Your task to perform on an android device: Search for custom made wallets on etsy.com Image 0: 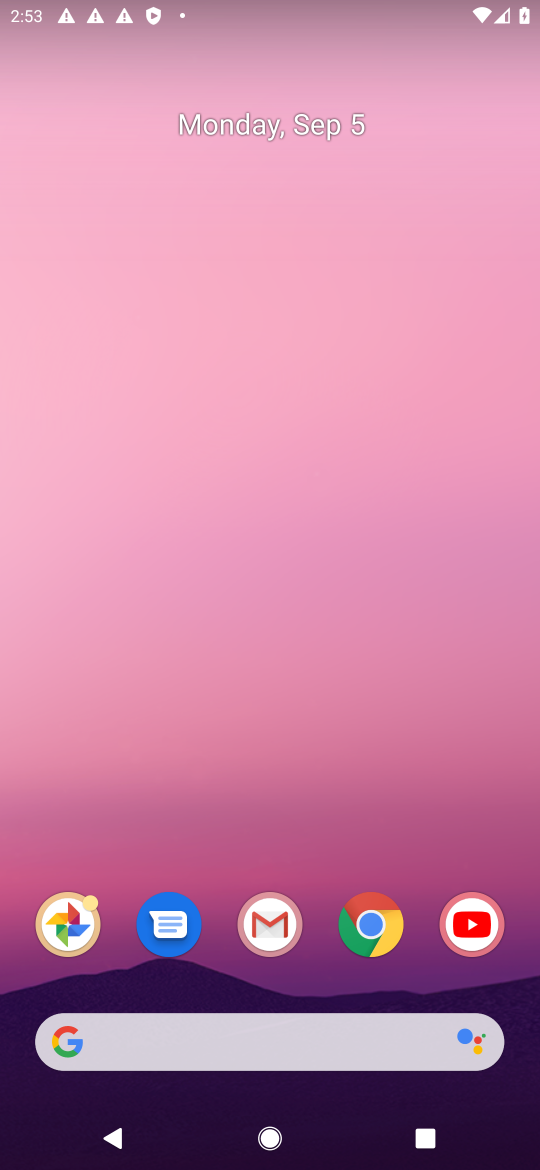
Step 0: click (530, 695)
Your task to perform on an android device: Search for custom made wallets on etsy.com Image 1: 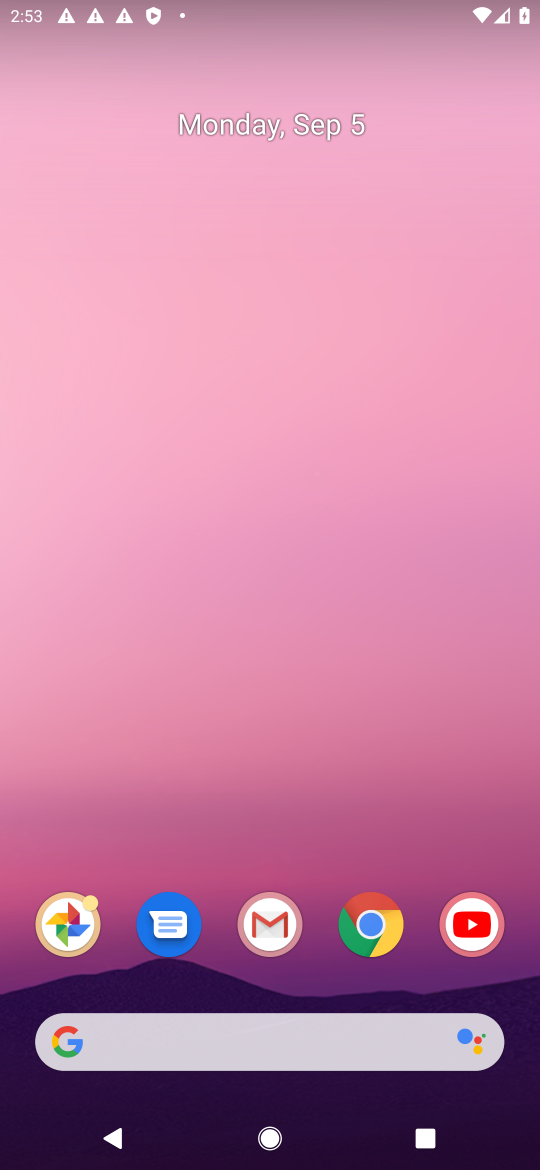
Step 1: click (369, 930)
Your task to perform on an android device: Search for custom made wallets on etsy.com Image 2: 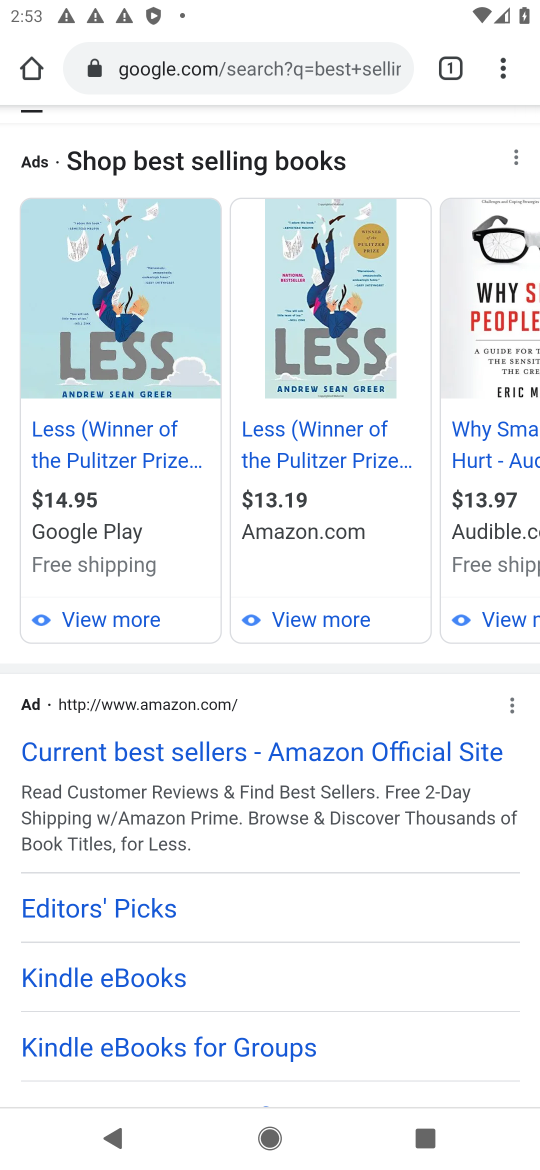
Step 2: click (317, 65)
Your task to perform on an android device: Search for custom made wallets on etsy.com Image 3: 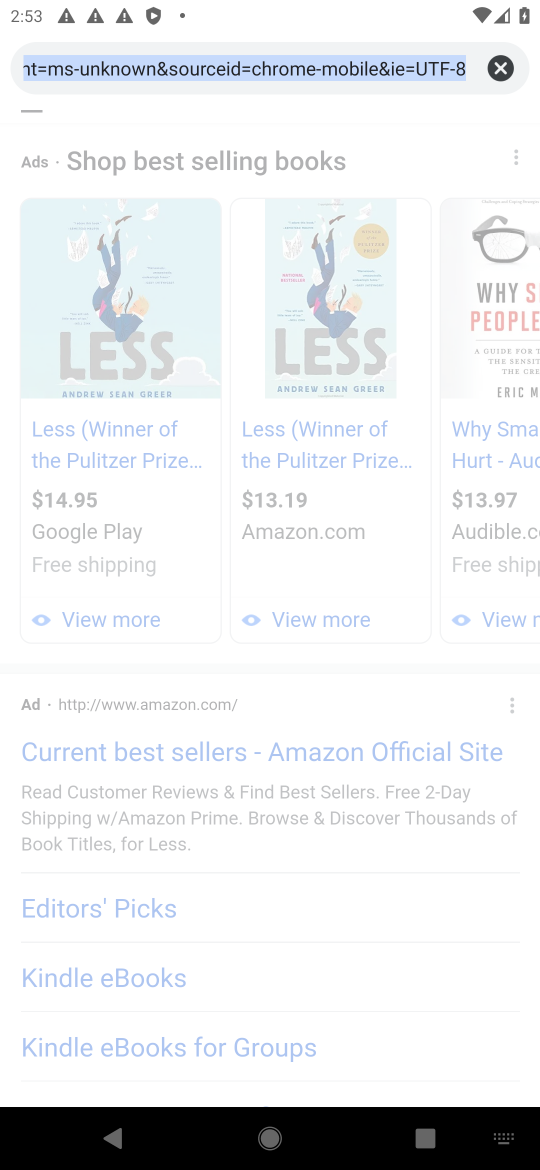
Step 3: type "etsy.com"
Your task to perform on an android device: Search for custom made wallets on etsy.com Image 4: 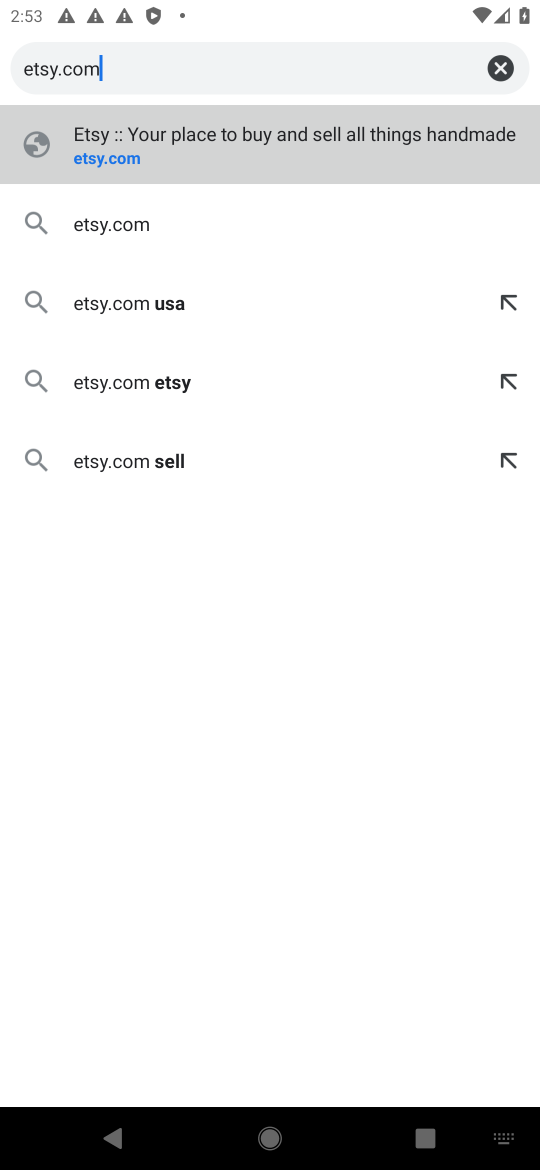
Step 4: click (432, 163)
Your task to perform on an android device: Search for custom made wallets on etsy.com Image 5: 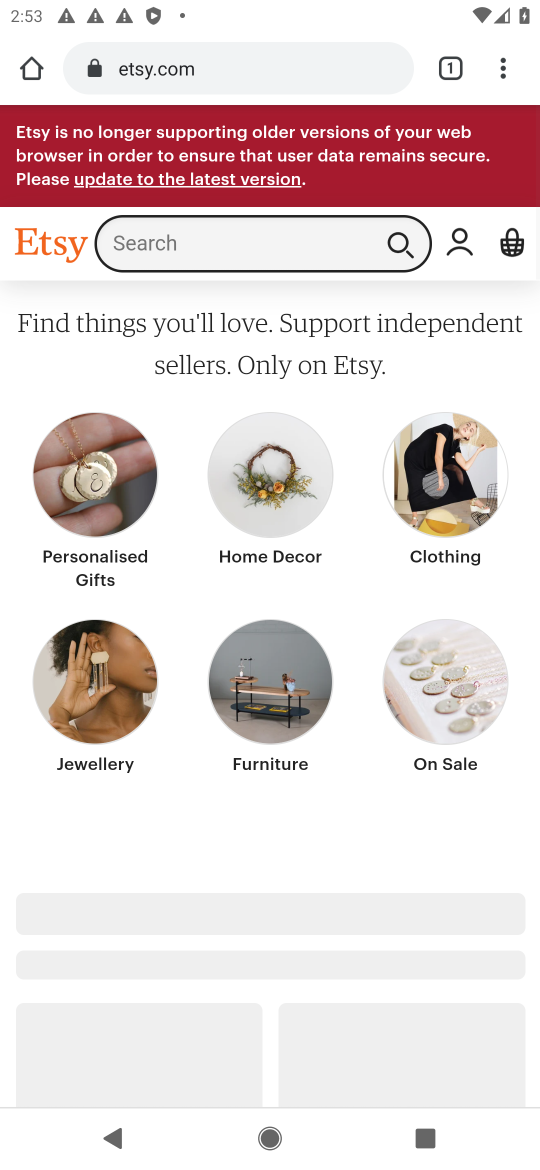
Step 5: click (432, 163)
Your task to perform on an android device: Search for custom made wallets on etsy.com Image 6: 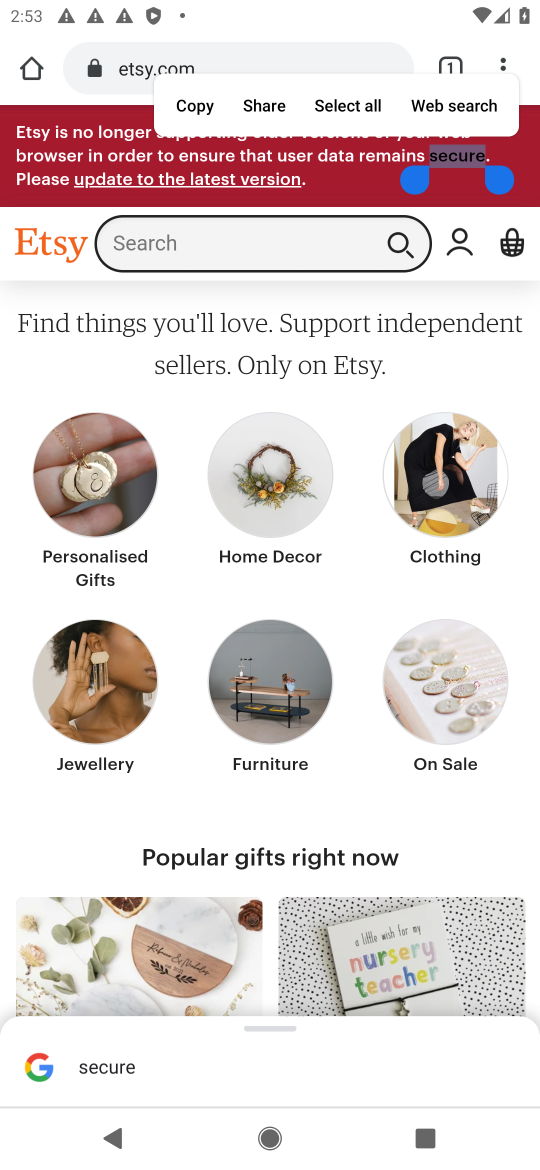
Step 6: click (361, 234)
Your task to perform on an android device: Search for custom made wallets on etsy.com Image 7: 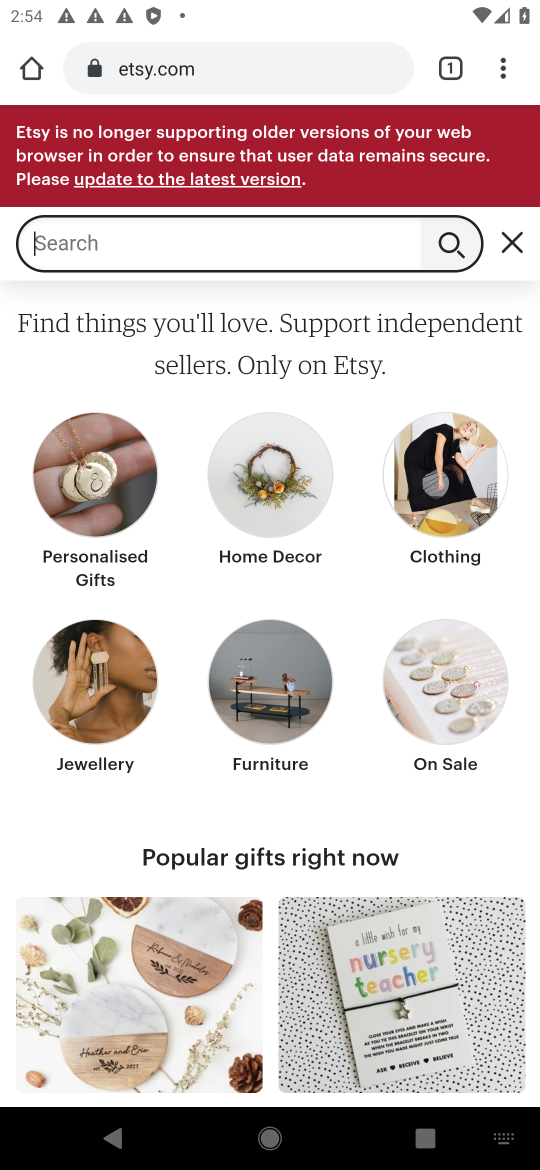
Step 7: type "custon made wallets"
Your task to perform on an android device: Search for custom made wallets on etsy.com Image 8: 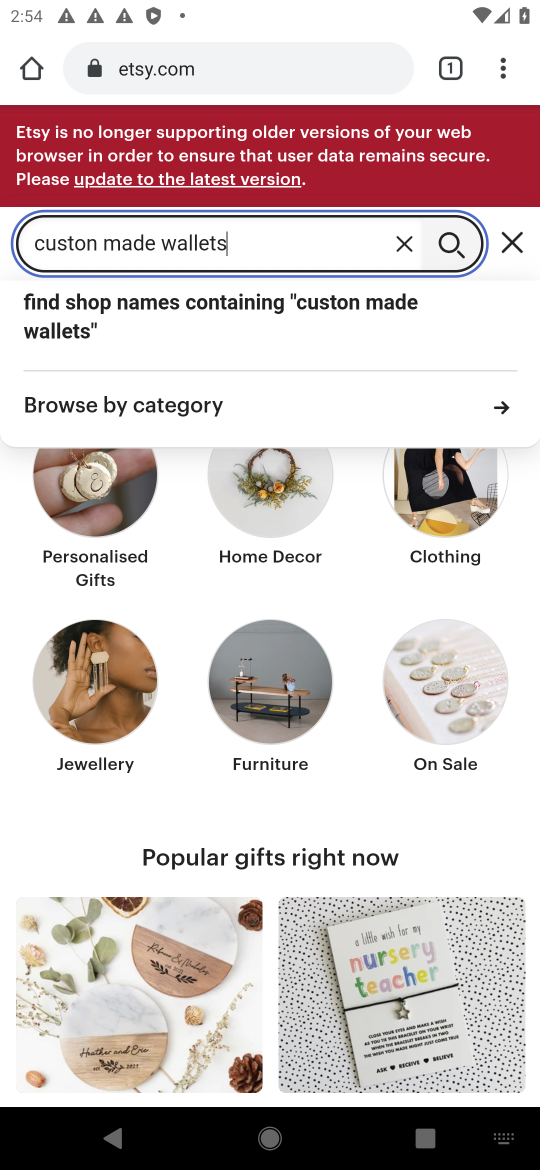
Step 8: click (446, 244)
Your task to perform on an android device: Search for custom made wallets on etsy.com Image 9: 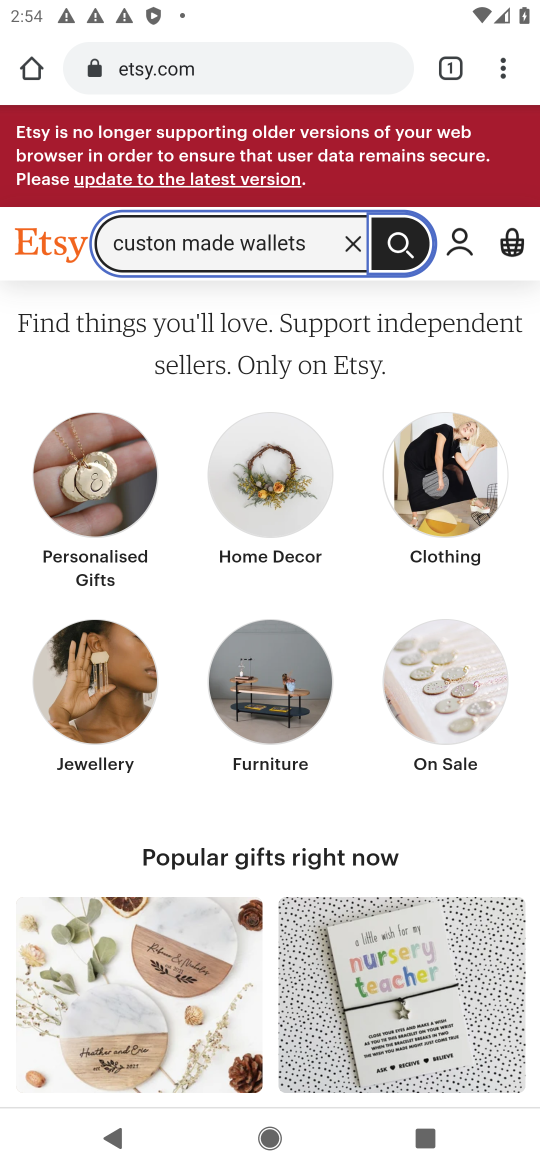
Step 9: click (397, 247)
Your task to perform on an android device: Search for custom made wallets on etsy.com Image 10: 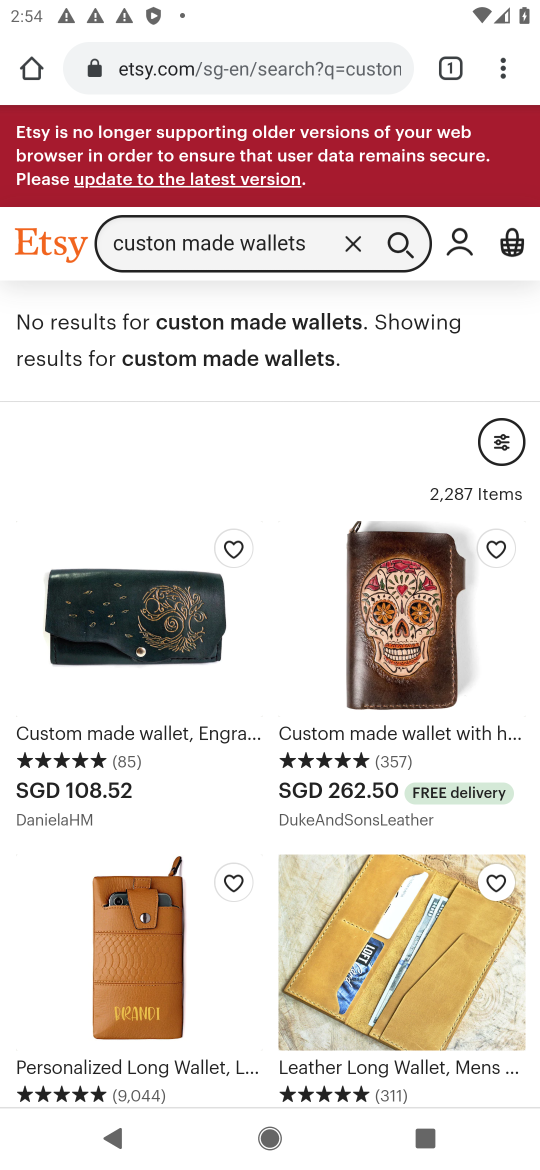
Step 10: click (397, 247)
Your task to perform on an android device: Search for custom made wallets on etsy.com Image 11: 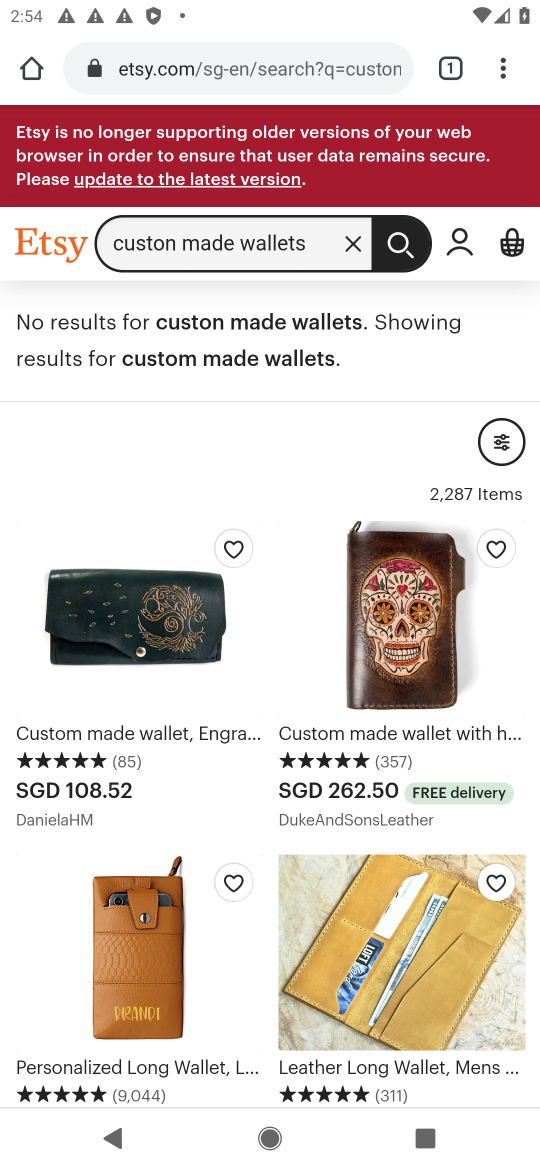
Step 11: task complete